Your task to perform on an android device: Go to Yahoo.com Image 0: 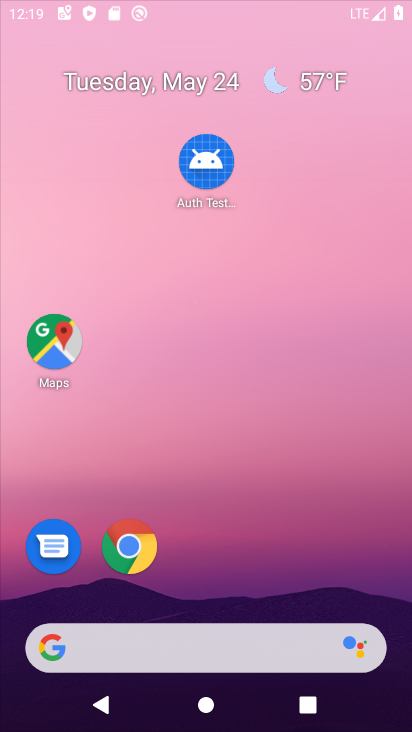
Step 0: drag from (235, 581) to (364, 79)
Your task to perform on an android device: Go to Yahoo.com Image 1: 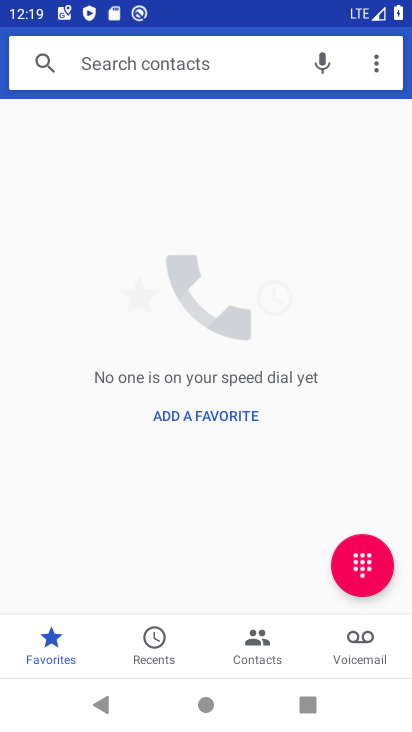
Step 1: press home button
Your task to perform on an android device: Go to Yahoo.com Image 2: 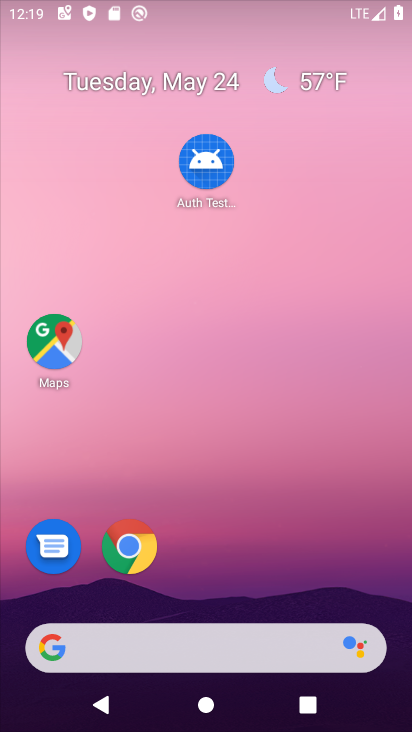
Step 2: drag from (186, 594) to (241, 31)
Your task to perform on an android device: Go to Yahoo.com Image 3: 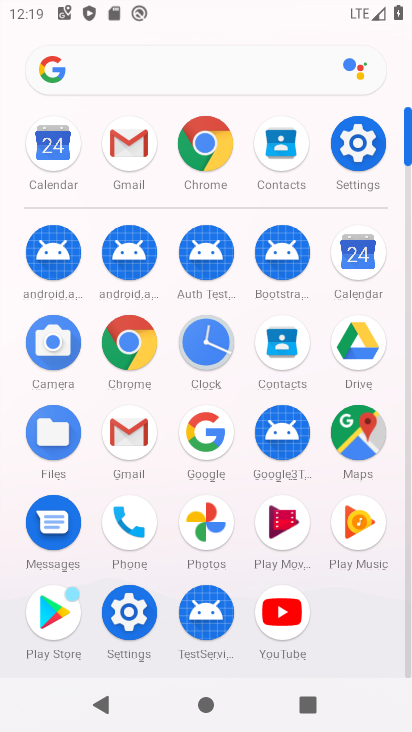
Step 3: click (156, 73)
Your task to perform on an android device: Go to Yahoo.com Image 4: 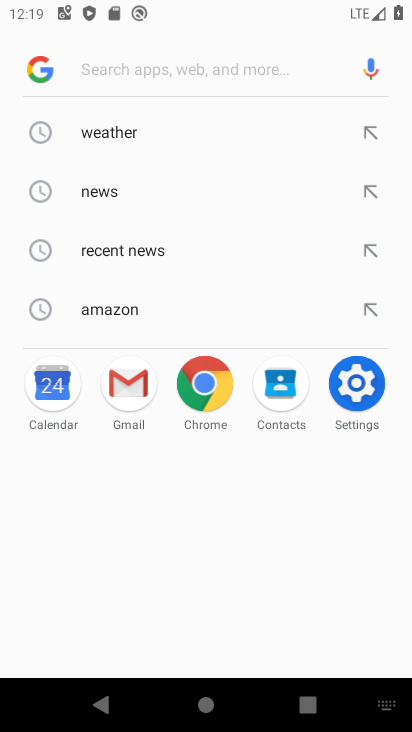
Step 4: type "Yahoo.com"
Your task to perform on an android device: Go to Yahoo.com Image 5: 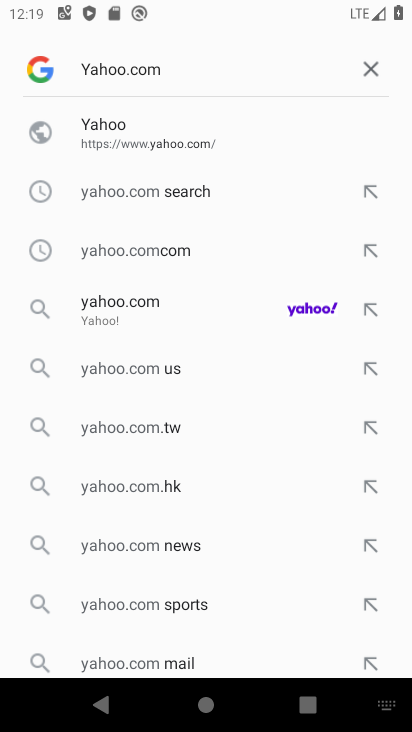
Step 5: click (145, 312)
Your task to perform on an android device: Go to Yahoo.com Image 6: 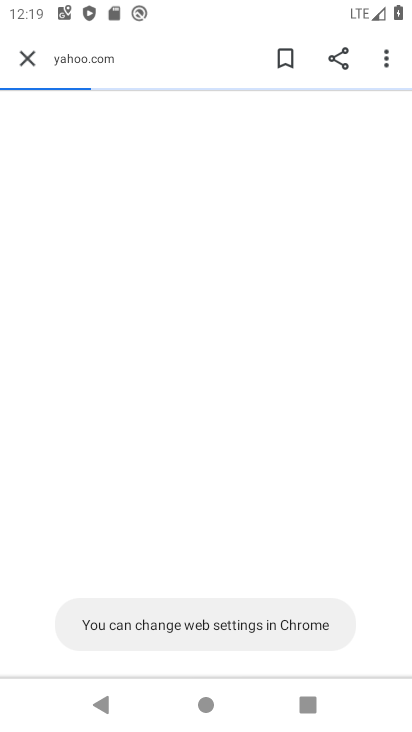
Step 6: task complete